Your task to perform on an android device: Open Youtube and go to the subscriptions tab Image 0: 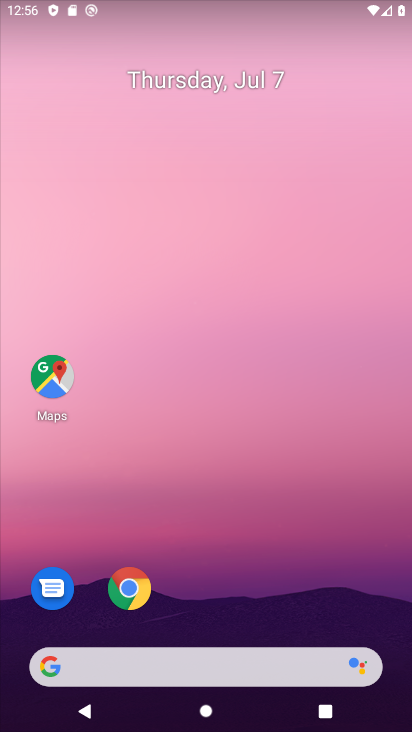
Step 0: drag from (115, 648) to (183, 321)
Your task to perform on an android device: Open Youtube and go to the subscriptions tab Image 1: 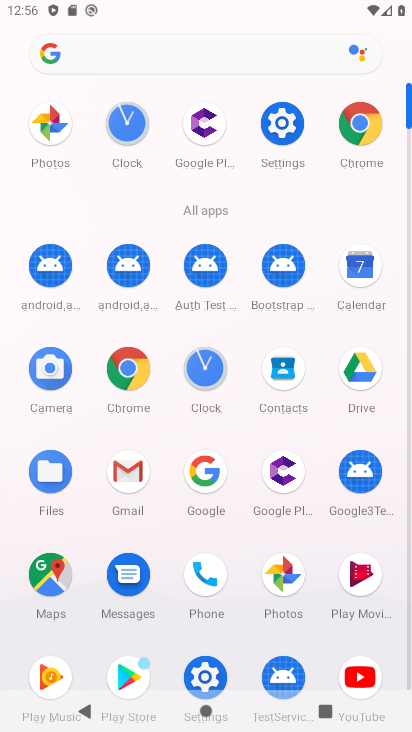
Step 1: click (367, 660)
Your task to perform on an android device: Open Youtube and go to the subscriptions tab Image 2: 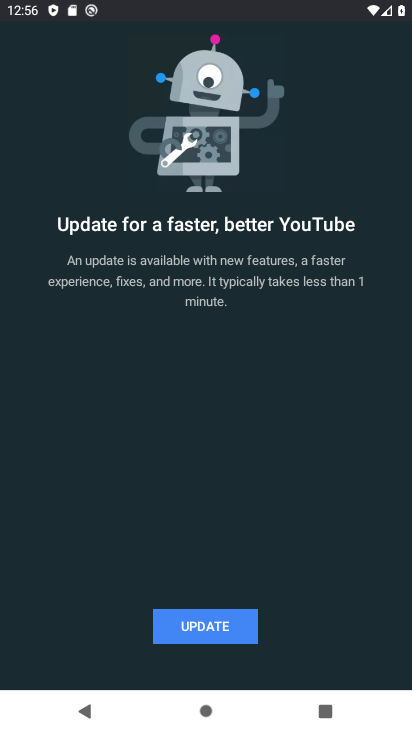
Step 2: task complete